Your task to perform on an android device: Show me recent news Image 0: 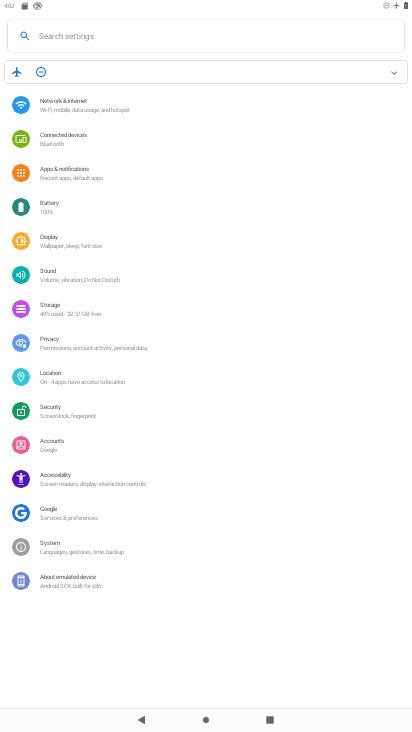
Step 0: press home button
Your task to perform on an android device: Show me recent news Image 1: 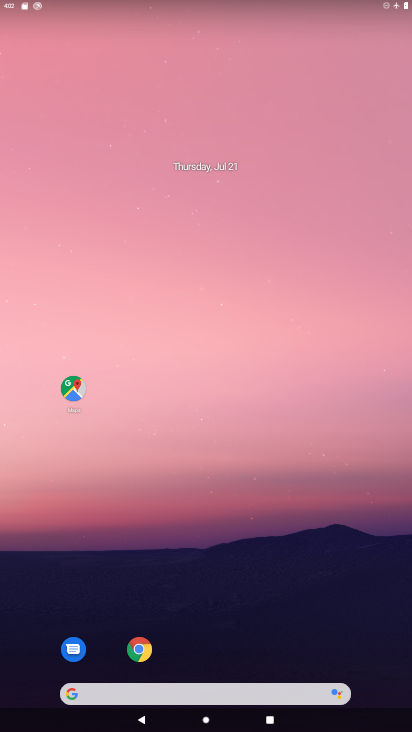
Step 1: click (139, 652)
Your task to perform on an android device: Show me recent news Image 2: 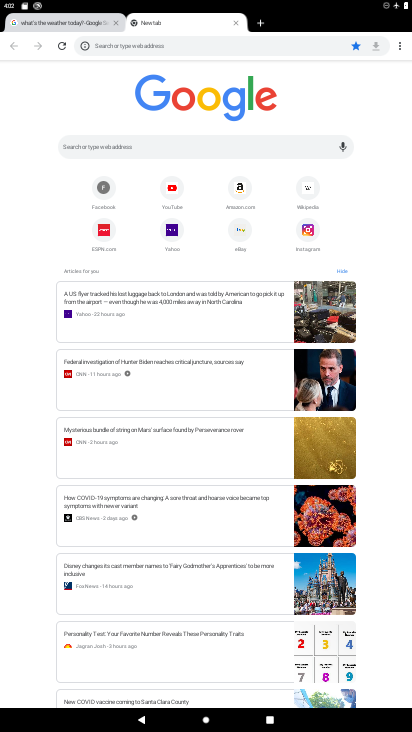
Step 2: click (196, 150)
Your task to perform on an android device: Show me recent news Image 3: 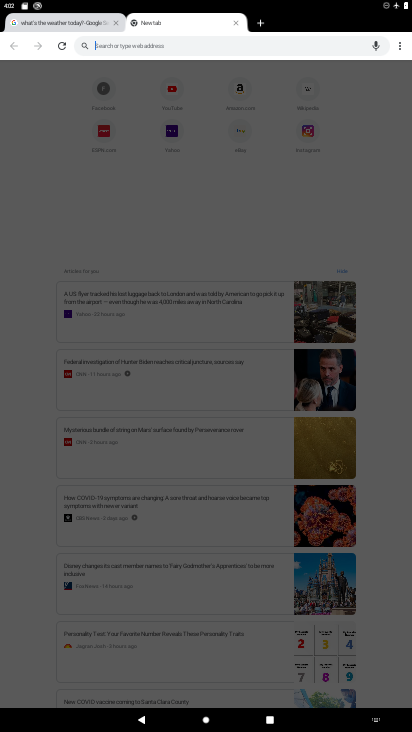
Step 3: type "Show me recent news"
Your task to perform on an android device: Show me recent news Image 4: 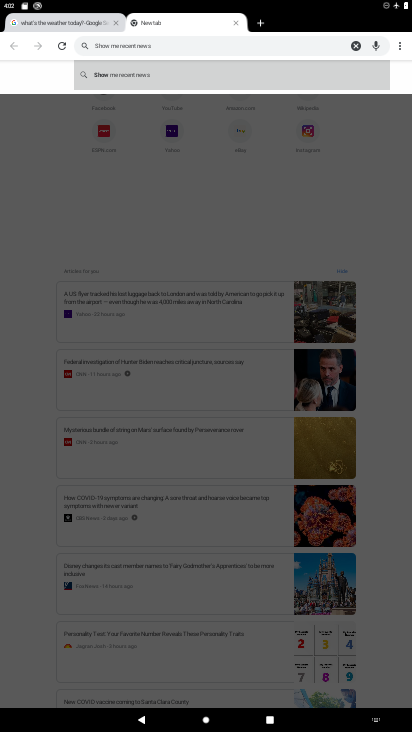
Step 4: click (129, 79)
Your task to perform on an android device: Show me recent news Image 5: 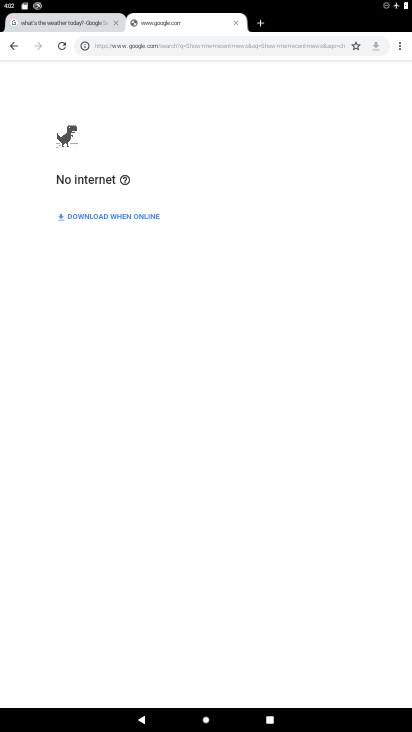
Step 5: task complete